Your task to perform on an android device: toggle sleep mode Image 0: 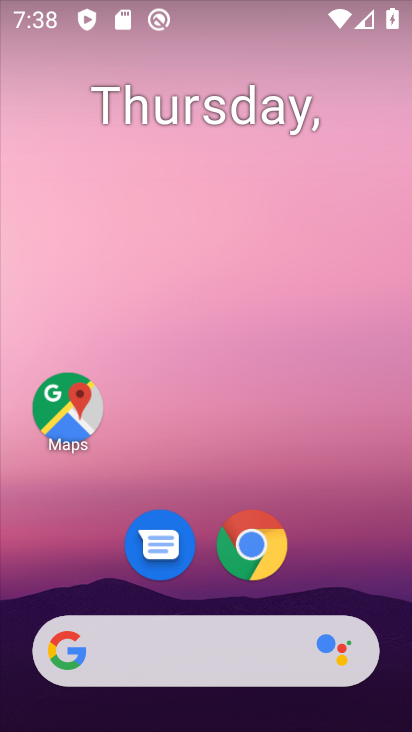
Step 0: drag from (183, 597) to (265, 109)
Your task to perform on an android device: toggle sleep mode Image 1: 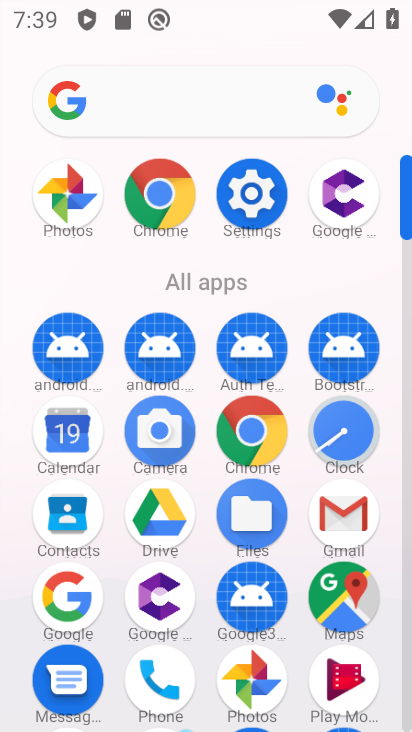
Step 1: click (265, 189)
Your task to perform on an android device: toggle sleep mode Image 2: 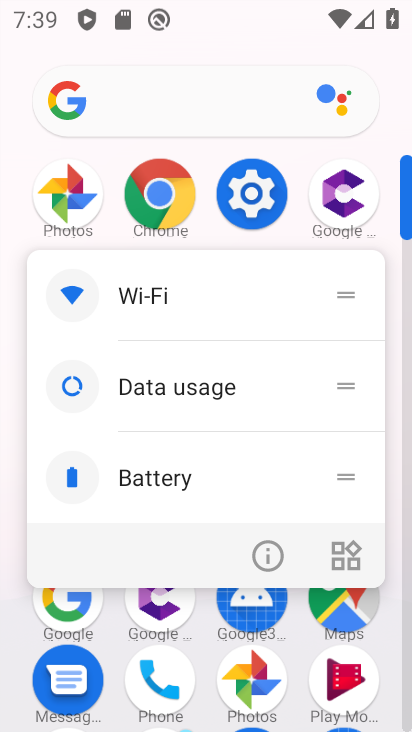
Step 2: click (261, 564)
Your task to perform on an android device: toggle sleep mode Image 3: 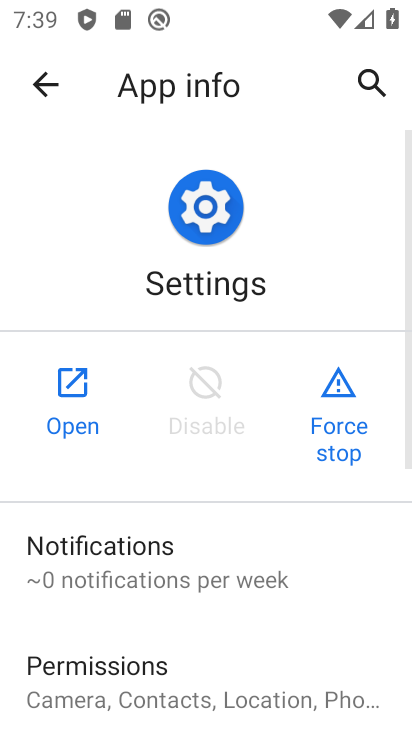
Step 3: click (43, 407)
Your task to perform on an android device: toggle sleep mode Image 4: 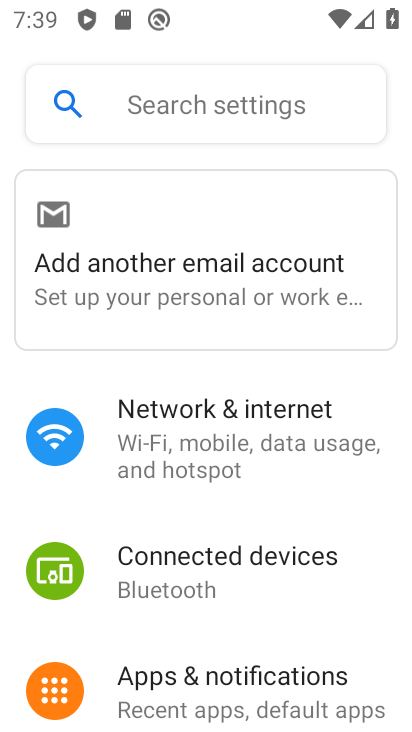
Step 4: drag from (200, 602) to (306, 79)
Your task to perform on an android device: toggle sleep mode Image 5: 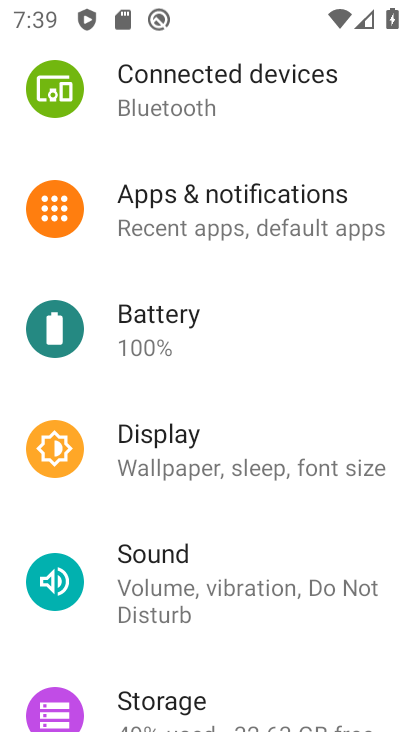
Step 5: click (199, 423)
Your task to perform on an android device: toggle sleep mode Image 6: 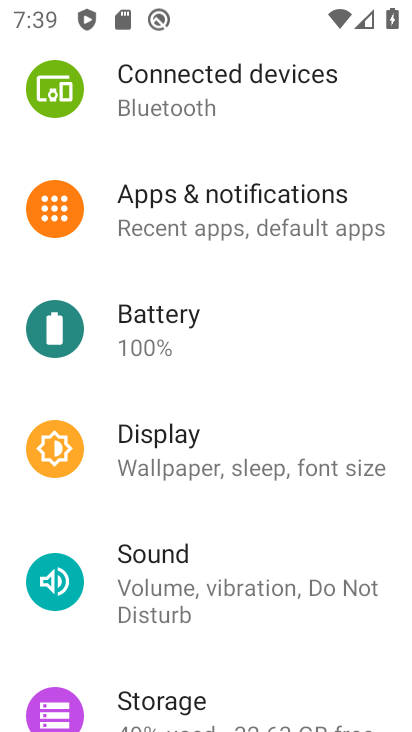
Step 6: click (199, 423)
Your task to perform on an android device: toggle sleep mode Image 7: 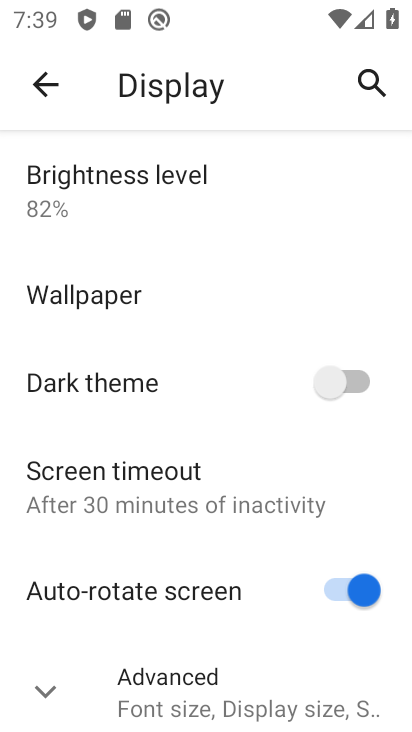
Step 7: click (191, 475)
Your task to perform on an android device: toggle sleep mode Image 8: 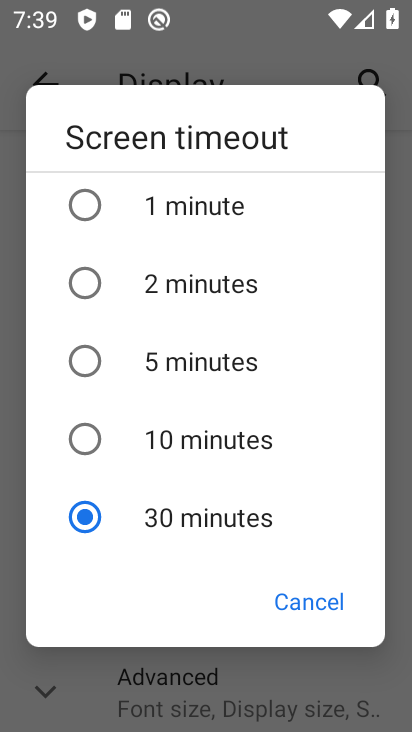
Step 8: task complete